Your task to perform on an android device: turn off translation in the chrome app Image 0: 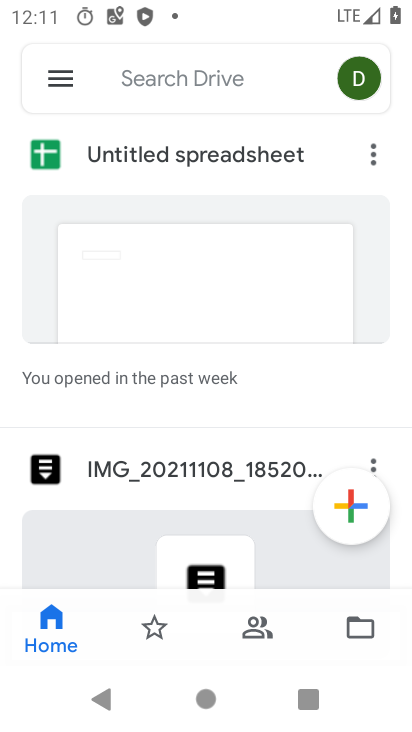
Step 0: press home button
Your task to perform on an android device: turn off translation in the chrome app Image 1: 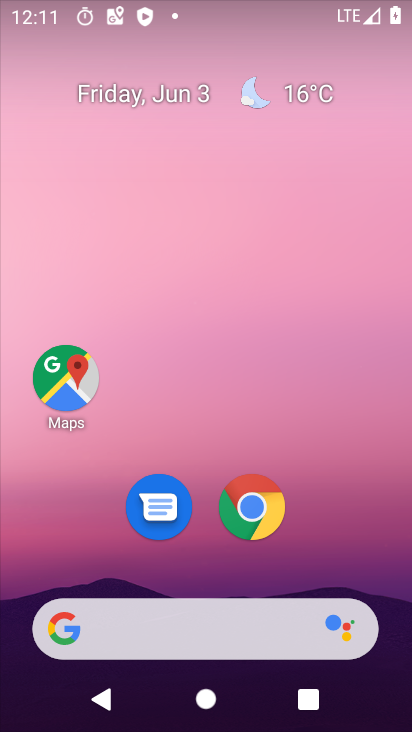
Step 1: drag from (387, 610) to (328, 92)
Your task to perform on an android device: turn off translation in the chrome app Image 2: 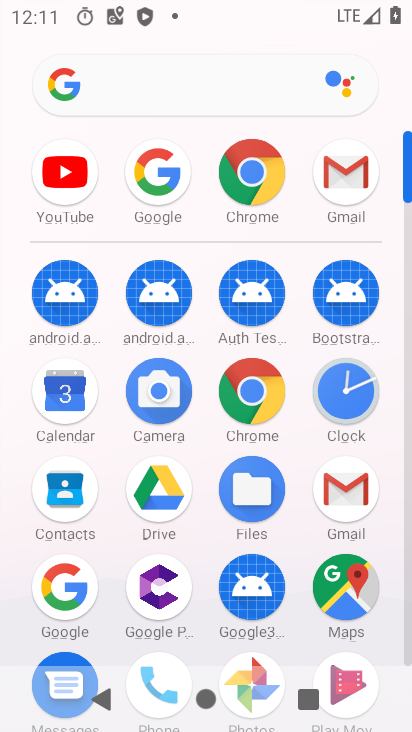
Step 2: click (243, 186)
Your task to perform on an android device: turn off translation in the chrome app Image 3: 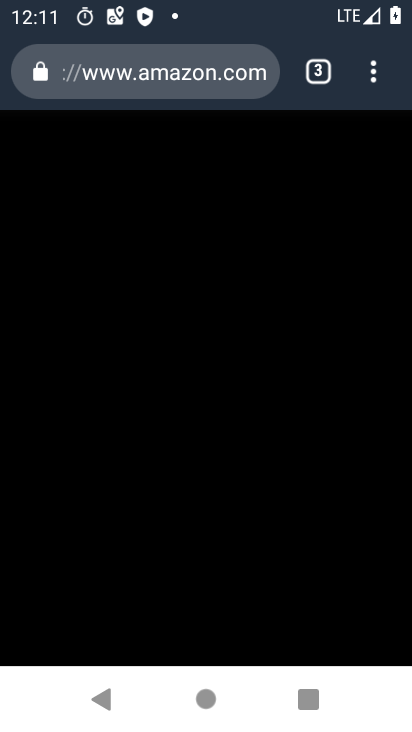
Step 3: press back button
Your task to perform on an android device: turn off translation in the chrome app Image 4: 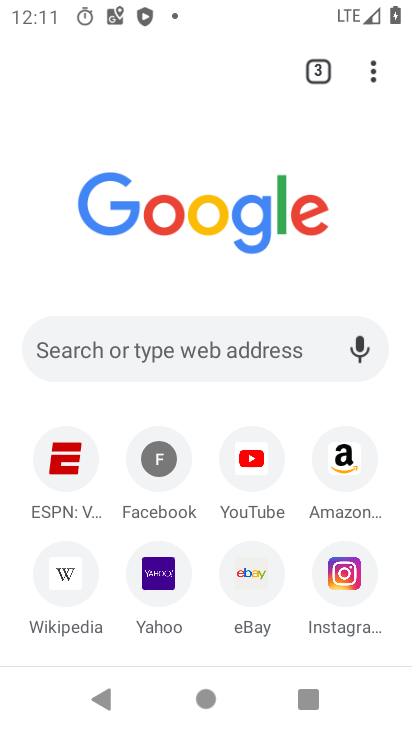
Step 4: click (371, 64)
Your task to perform on an android device: turn off translation in the chrome app Image 5: 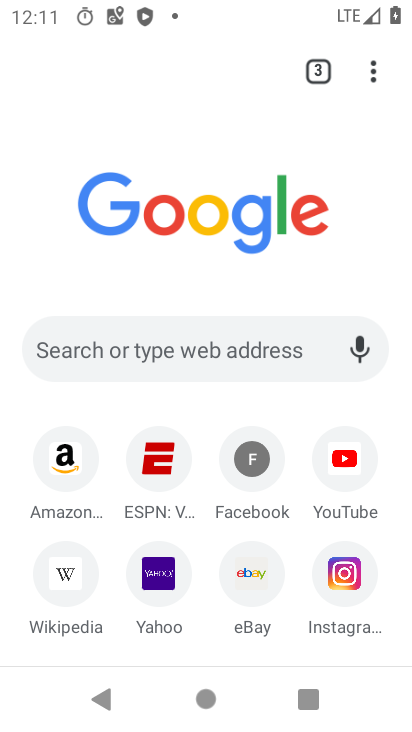
Step 5: click (375, 64)
Your task to perform on an android device: turn off translation in the chrome app Image 6: 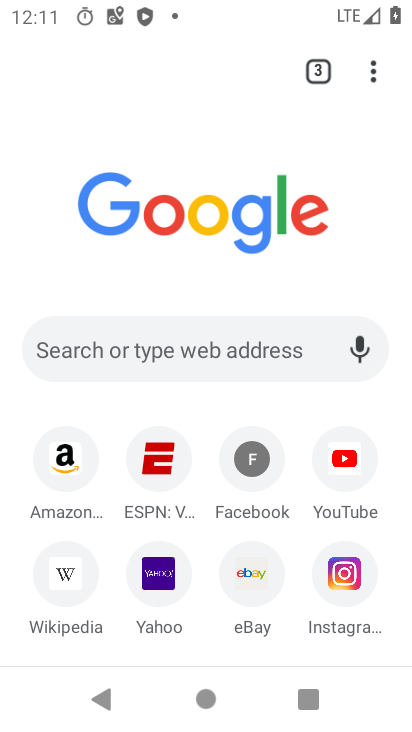
Step 6: click (375, 64)
Your task to perform on an android device: turn off translation in the chrome app Image 7: 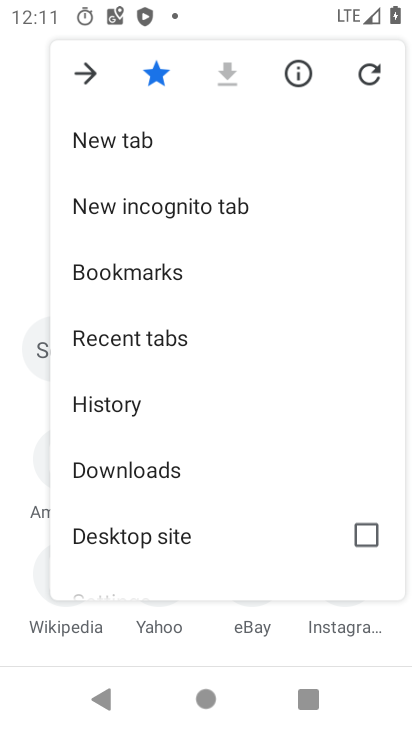
Step 7: drag from (196, 524) to (205, 169)
Your task to perform on an android device: turn off translation in the chrome app Image 8: 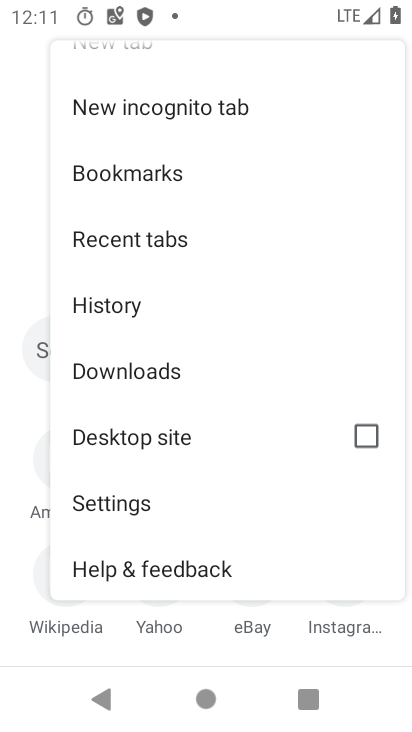
Step 8: click (145, 523)
Your task to perform on an android device: turn off translation in the chrome app Image 9: 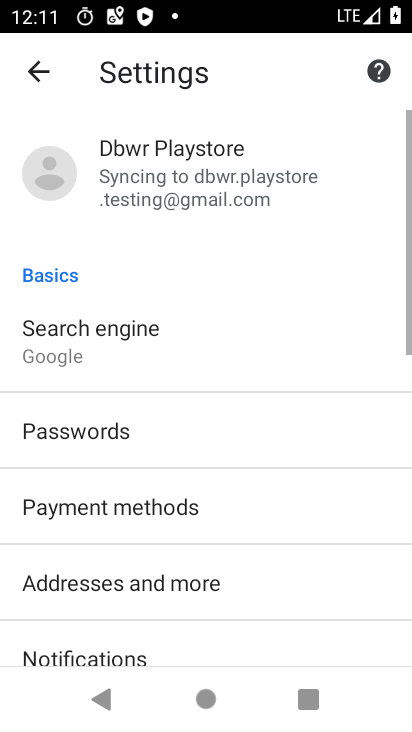
Step 9: drag from (128, 580) to (188, 1)
Your task to perform on an android device: turn off translation in the chrome app Image 10: 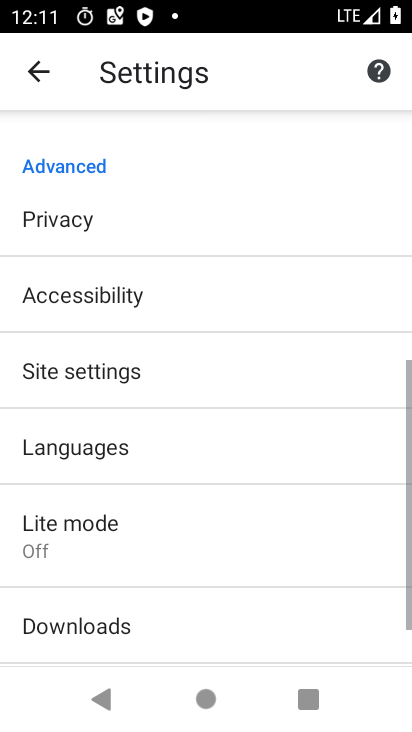
Step 10: click (149, 449)
Your task to perform on an android device: turn off translation in the chrome app Image 11: 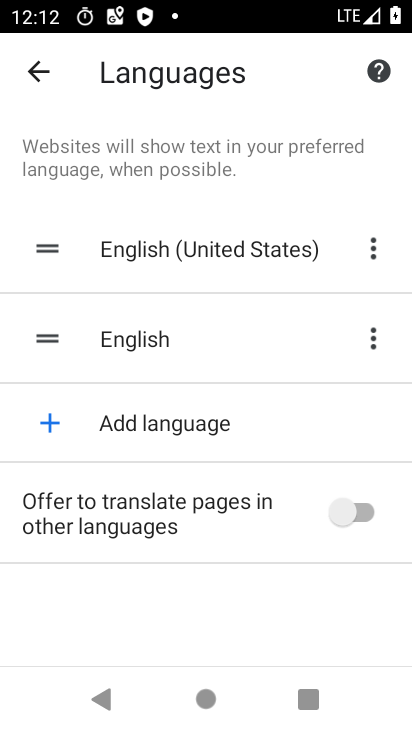
Step 11: task complete